Your task to perform on an android device: Go to internet settings Image 0: 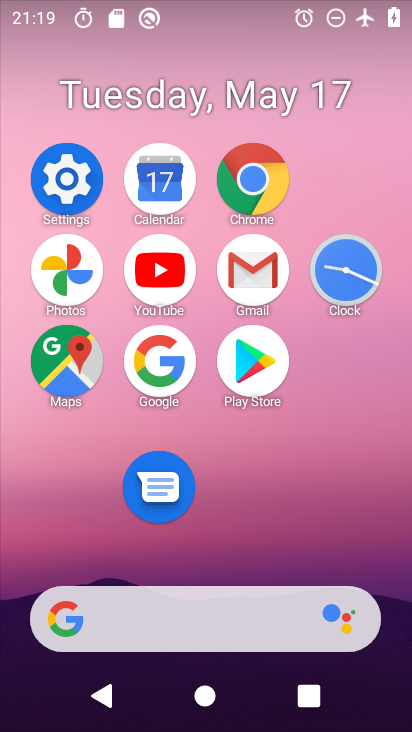
Step 0: click (73, 176)
Your task to perform on an android device: Go to internet settings Image 1: 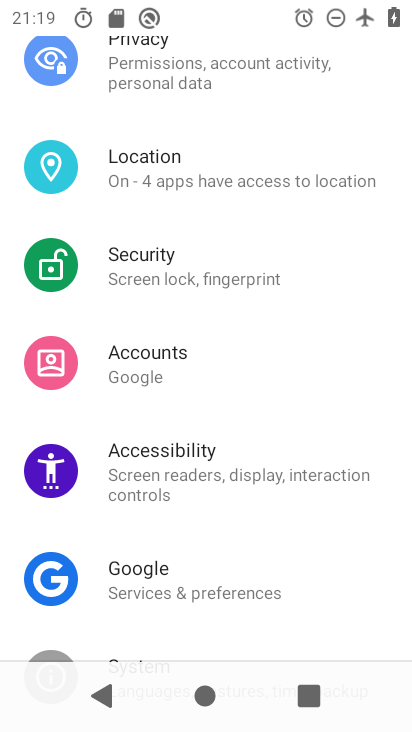
Step 1: drag from (301, 135) to (306, 506)
Your task to perform on an android device: Go to internet settings Image 2: 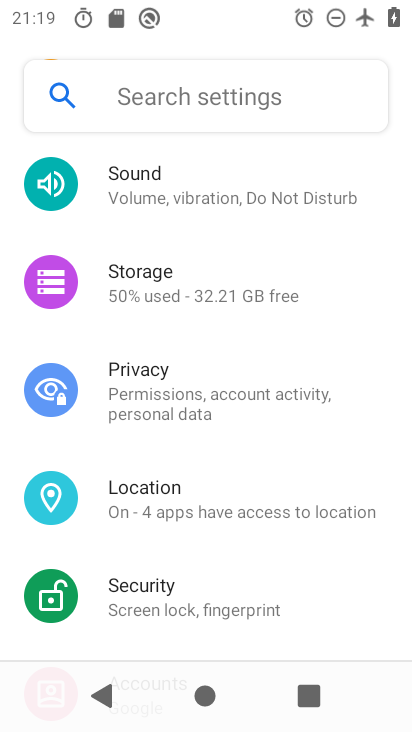
Step 2: drag from (313, 226) to (330, 534)
Your task to perform on an android device: Go to internet settings Image 3: 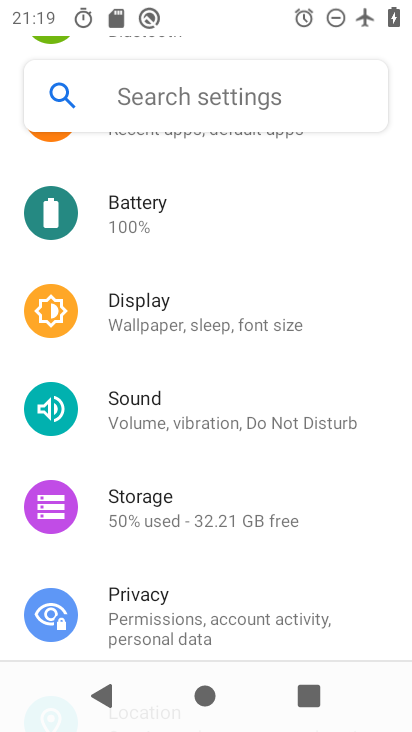
Step 3: drag from (271, 210) to (267, 510)
Your task to perform on an android device: Go to internet settings Image 4: 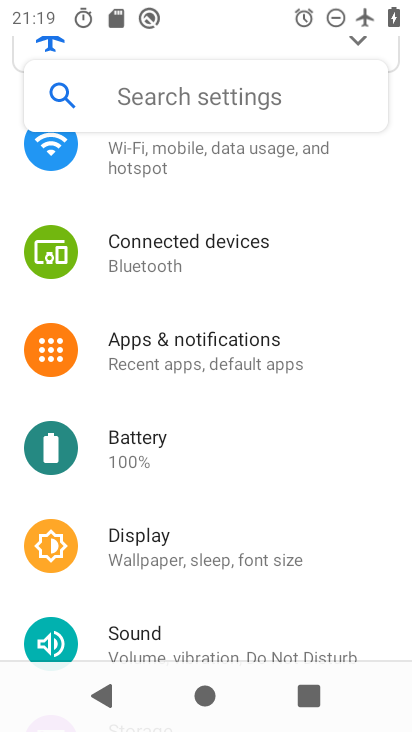
Step 4: drag from (261, 191) to (227, 470)
Your task to perform on an android device: Go to internet settings Image 5: 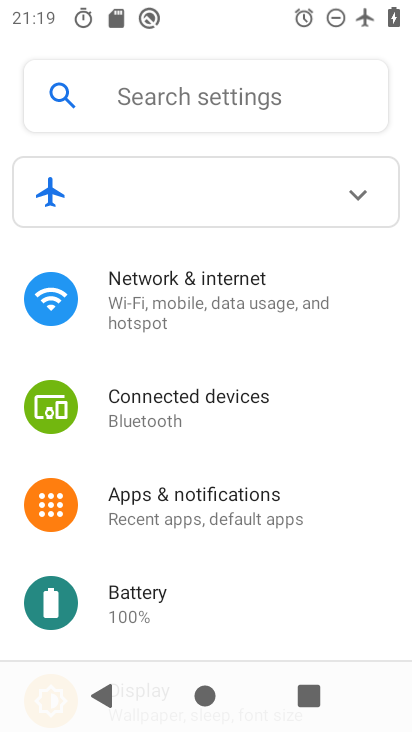
Step 5: click (246, 322)
Your task to perform on an android device: Go to internet settings Image 6: 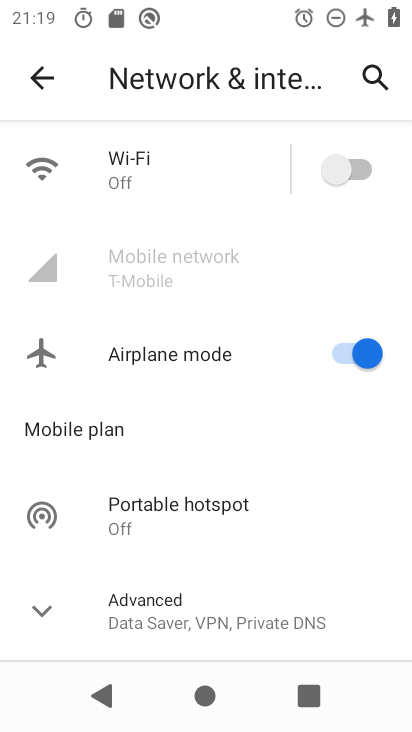
Step 6: task complete